Your task to perform on an android device: Open the map Image 0: 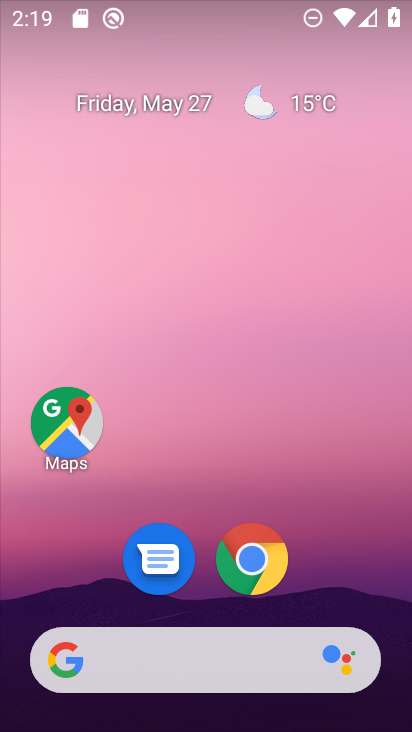
Step 0: drag from (257, 651) to (312, 3)
Your task to perform on an android device: Open the map Image 1: 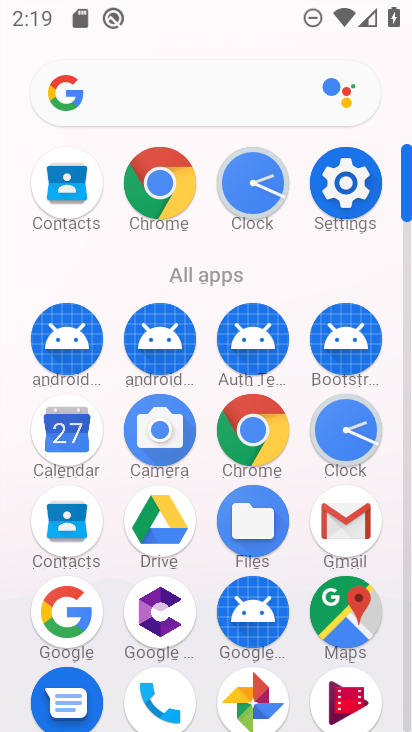
Step 1: click (358, 615)
Your task to perform on an android device: Open the map Image 2: 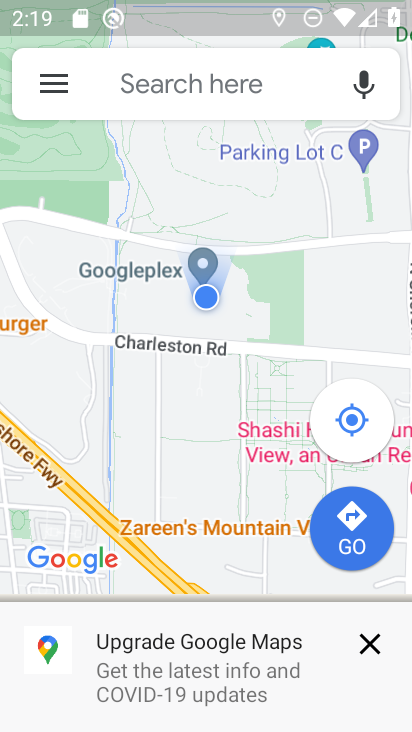
Step 2: task complete